Your task to perform on an android device: Open accessibility settings Image 0: 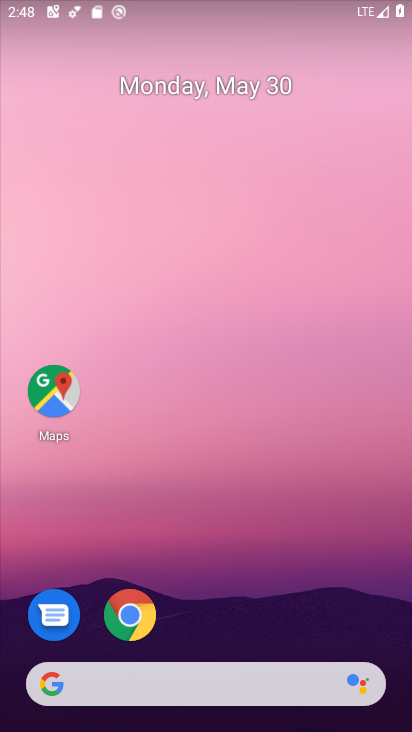
Step 0: drag from (246, 557) to (276, 47)
Your task to perform on an android device: Open accessibility settings Image 1: 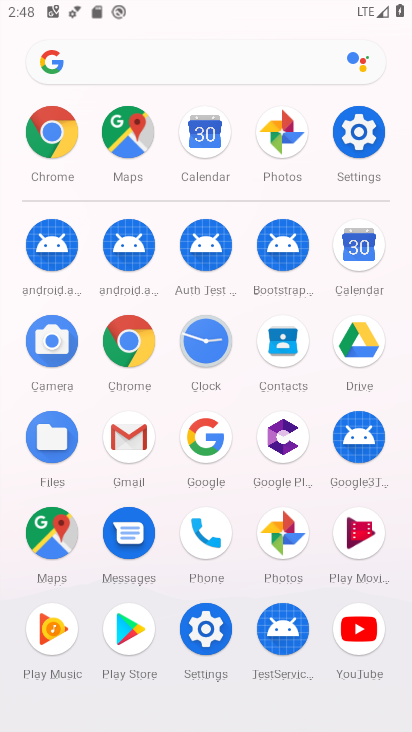
Step 1: click (357, 141)
Your task to perform on an android device: Open accessibility settings Image 2: 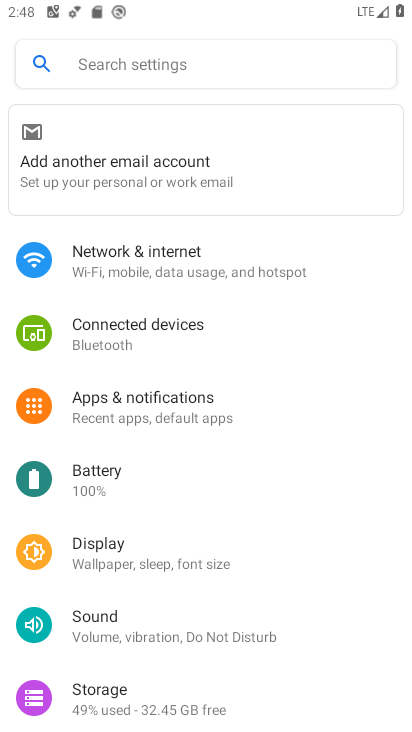
Step 2: drag from (219, 504) to (280, 53)
Your task to perform on an android device: Open accessibility settings Image 3: 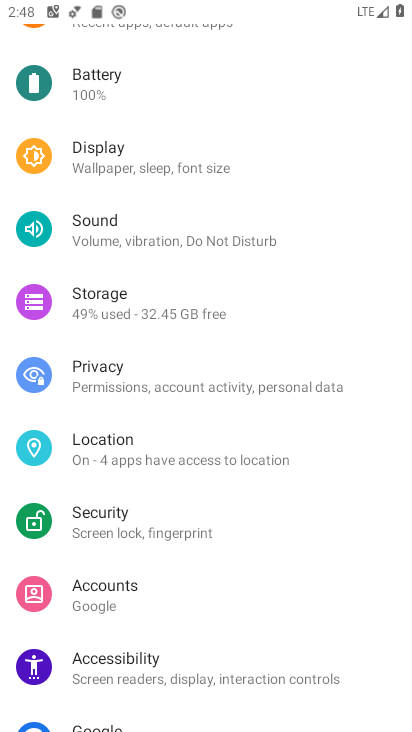
Step 3: click (189, 676)
Your task to perform on an android device: Open accessibility settings Image 4: 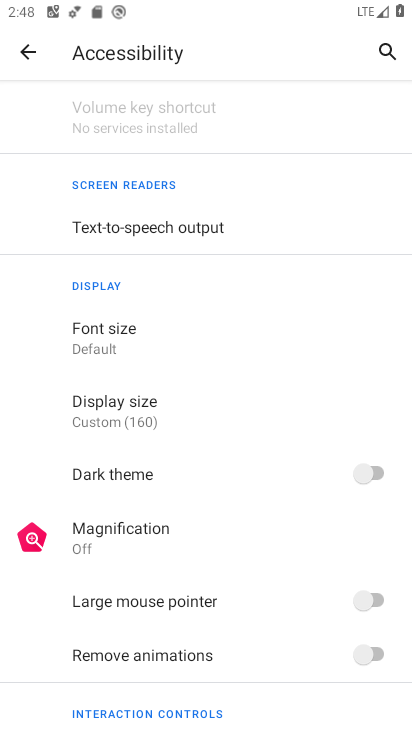
Step 4: task complete